Your task to perform on an android device: delete browsing data in the chrome app Image 0: 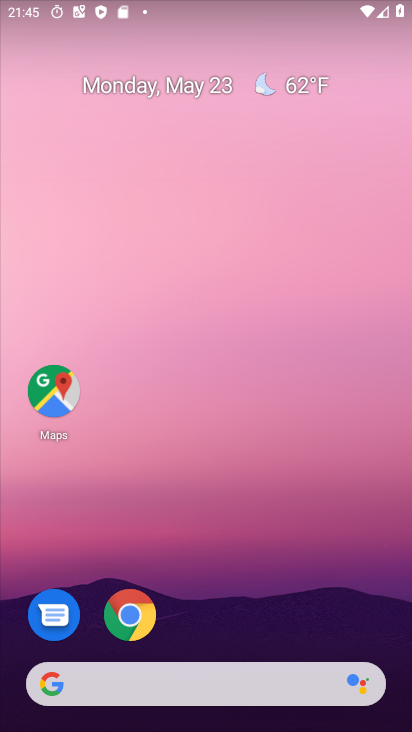
Step 0: click (131, 618)
Your task to perform on an android device: delete browsing data in the chrome app Image 1: 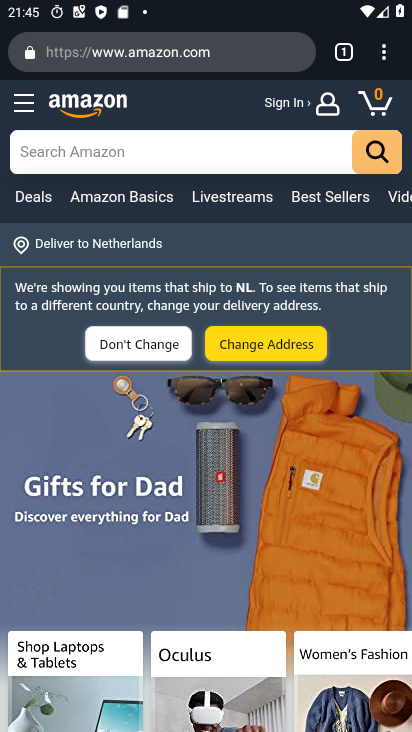
Step 1: click (382, 54)
Your task to perform on an android device: delete browsing data in the chrome app Image 2: 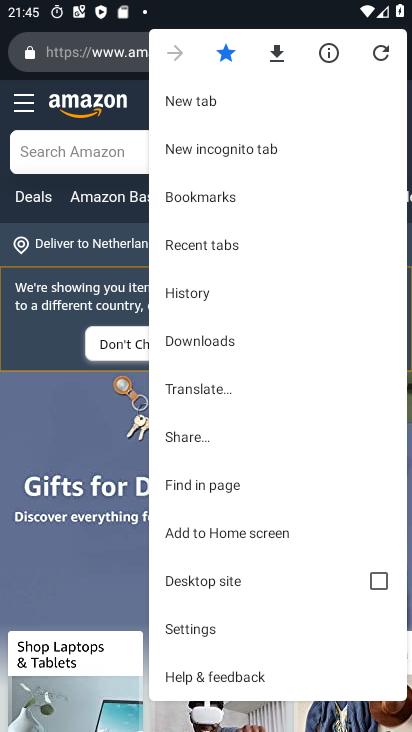
Step 2: click (232, 298)
Your task to perform on an android device: delete browsing data in the chrome app Image 3: 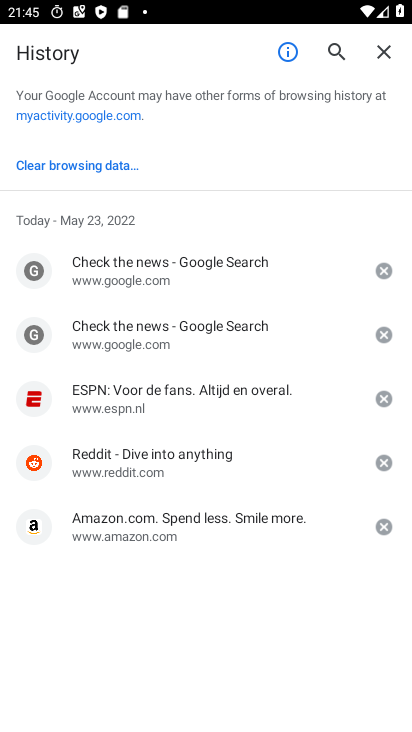
Step 3: click (125, 173)
Your task to perform on an android device: delete browsing data in the chrome app Image 4: 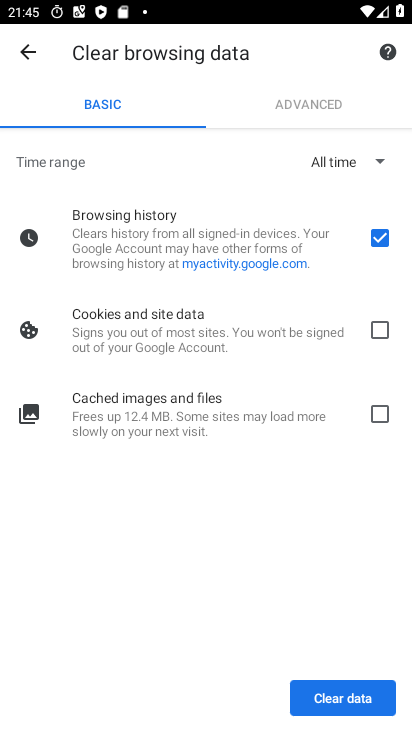
Step 4: click (325, 702)
Your task to perform on an android device: delete browsing data in the chrome app Image 5: 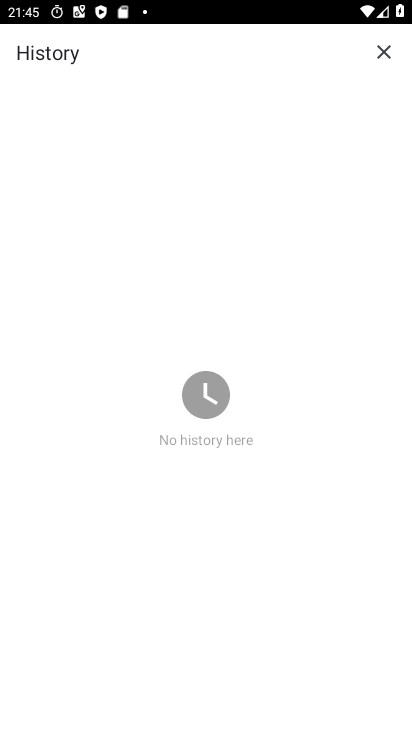
Step 5: task complete